Your task to perform on an android device: turn off sleep mode Image 0: 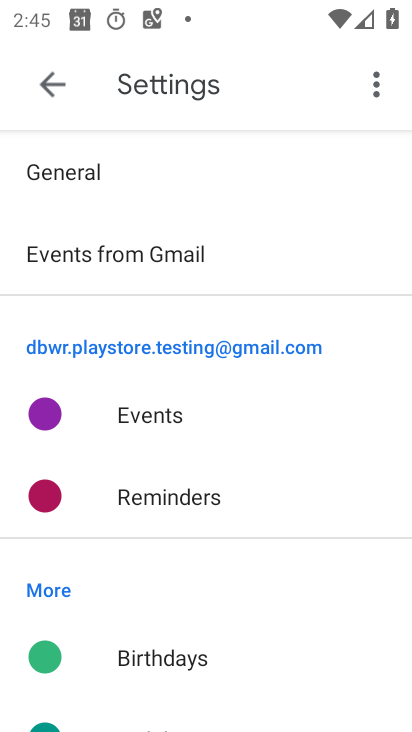
Step 0: press home button
Your task to perform on an android device: turn off sleep mode Image 1: 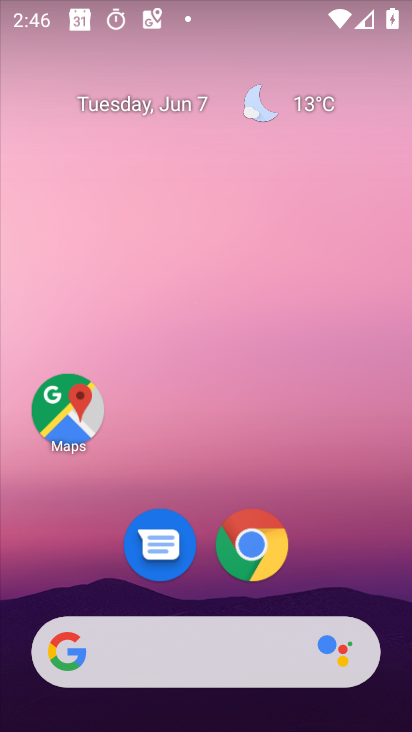
Step 1: drag from (345, 556) to (287, 26)
Your task to perform on an android device: turn off sleep mode Image 2: 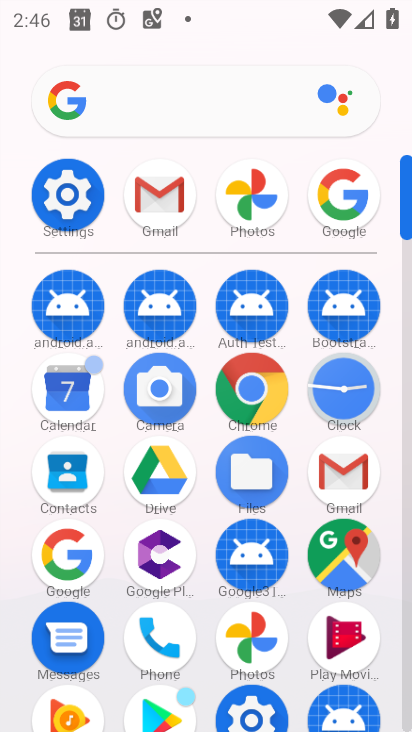
Step 2: click (67, 183)
Your task to perform on an android device: turn off sleep mode Image 3: 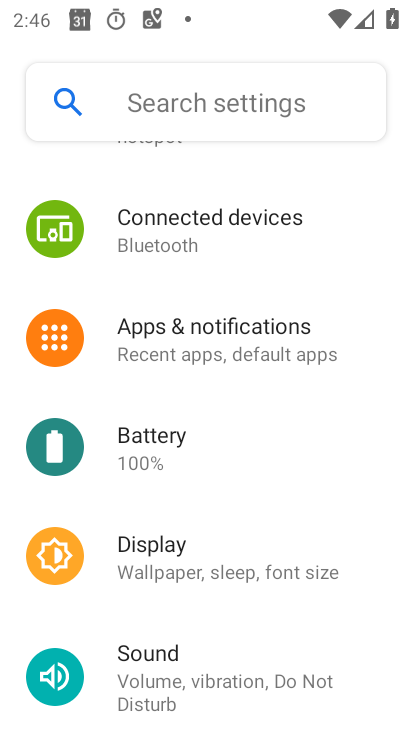
Step 3: click (215, 545)
Your task to perform on an android device: turn off sleep mode Image 4: 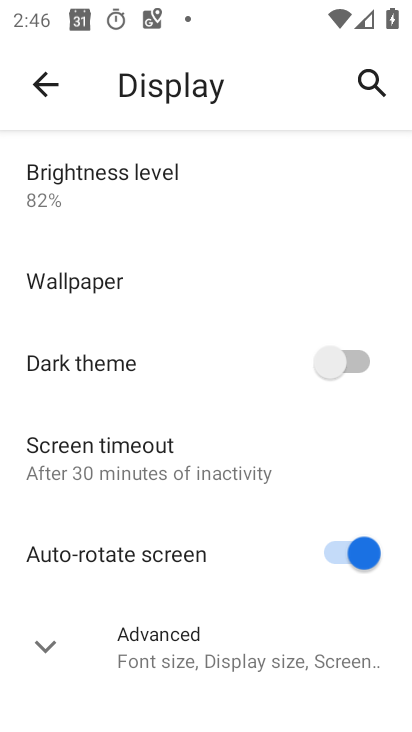
Step 4: task complete